Your task to perform on an android device: delete browsing data in the chrome app Image 0: 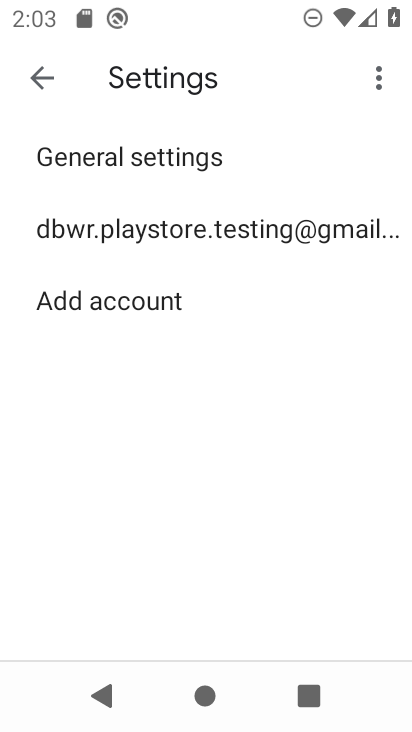
Step 0: press home button
Your task to perform on an android device: delete browsing data in the chrome app Image 1: 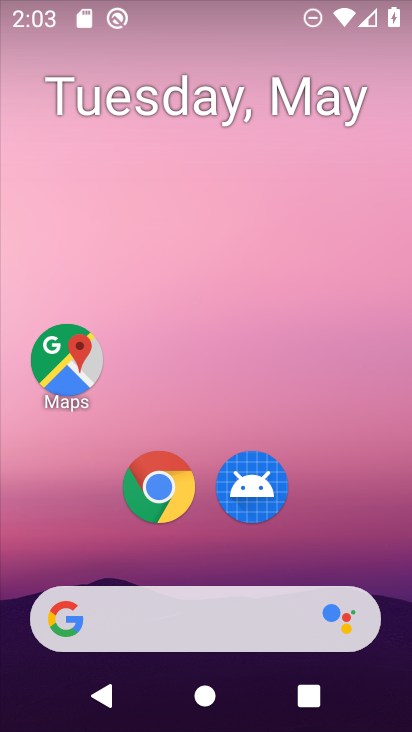
Step 1: click (169, 487)
Your task to perform on an android device: delete browsing data in the chrome app Image 2: 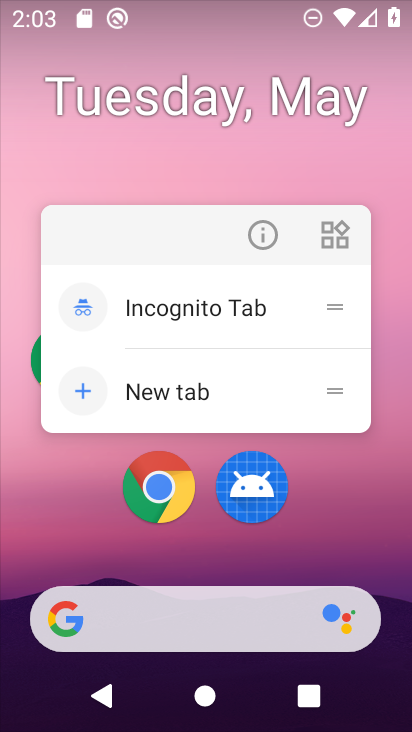
Step 2: click (140, 500)
Your task to perform on an android device: delete browsing data in the chrome app Image 3: 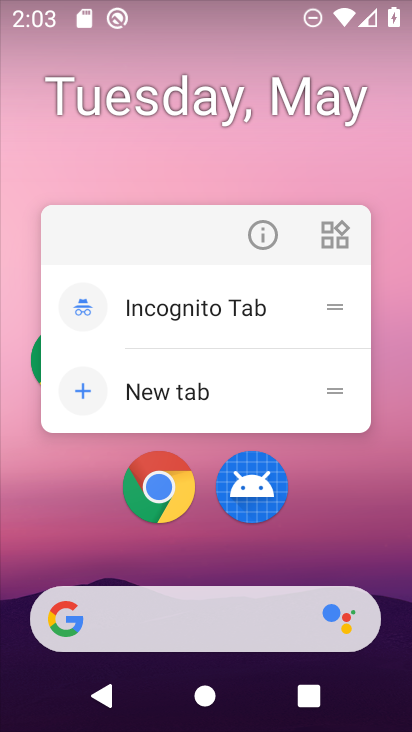
Step 3: click (160, 484)
Your task to perform on an android device: delete browsing data in the chrome app Image 4: 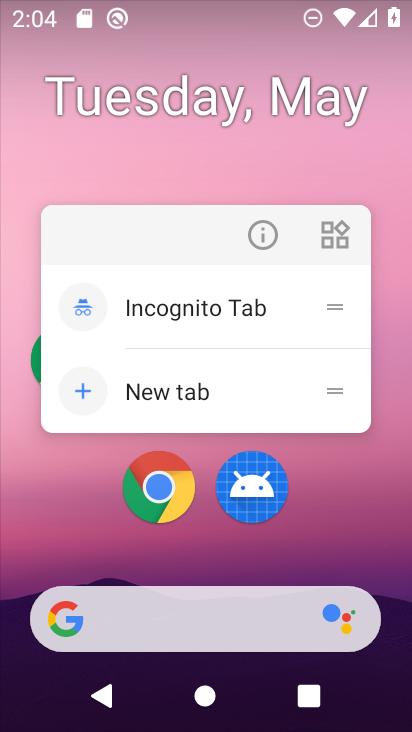
Step 4: click (164, 489)
Your task to perform on an android device: delete browsing data in the chrome app Image 5: 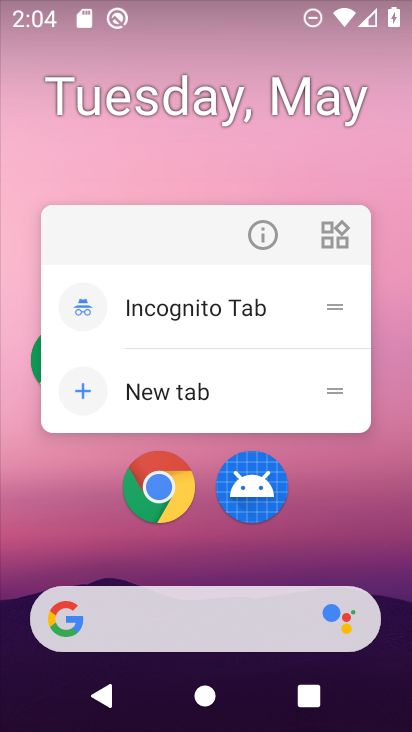
Step 5: click (164, 490)
Your task to perform on an android device: delete browsing data in the chrome app Image 6: 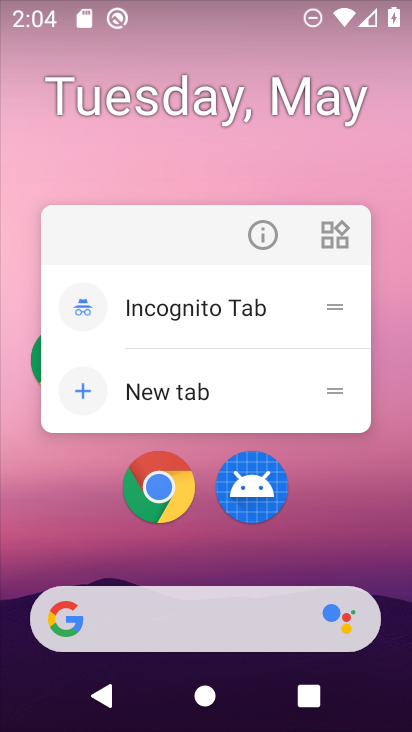
Step 6: click (162, 501)
Your task to perform on an android device: delete browsing data in the chrome app Image 7: 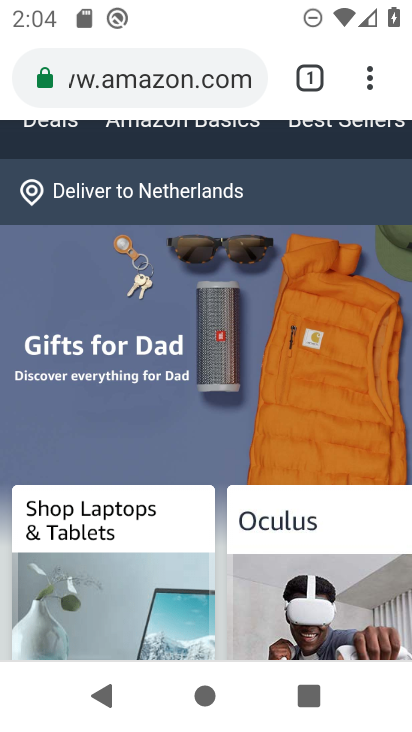
Step 7: click (370, 94)
Your task to perform on an android device: delete browsing data in the chrome app Image 8: 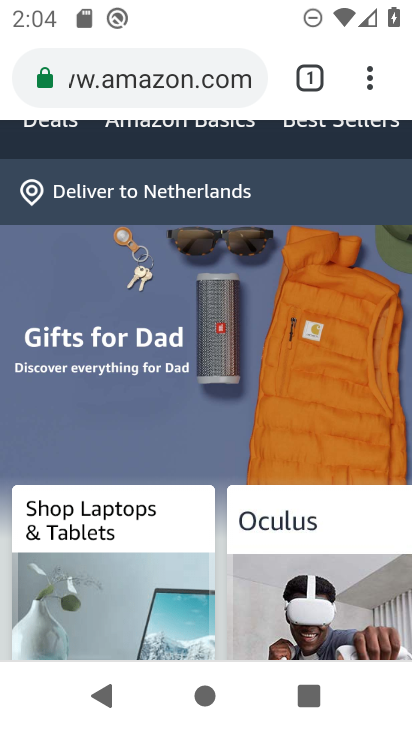
Step 8: click (362, 84)
Your task to perform on an android device: delete browsing data in the chrome app Image 9: 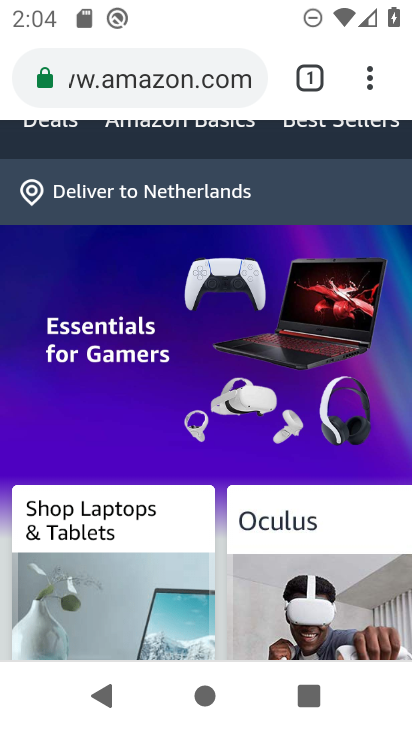
Step 9: click (368, 76)
Your task to perform on an android device: delete browsing data in the chrome app Image 10: 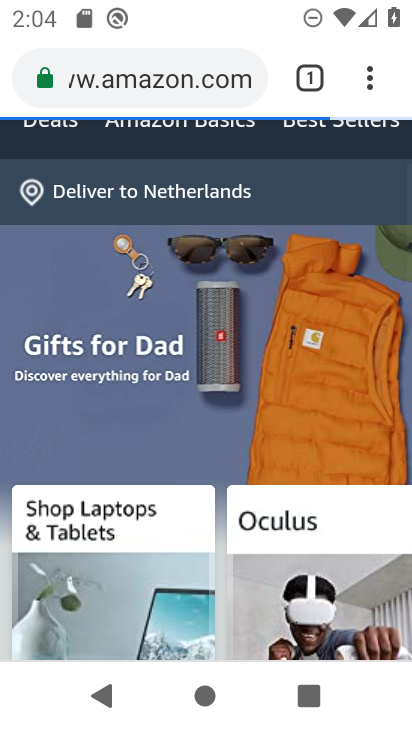
Step 10: click (368, 77)
Your task to perform on an android device: delete browsing data in the chrome app Image 11: 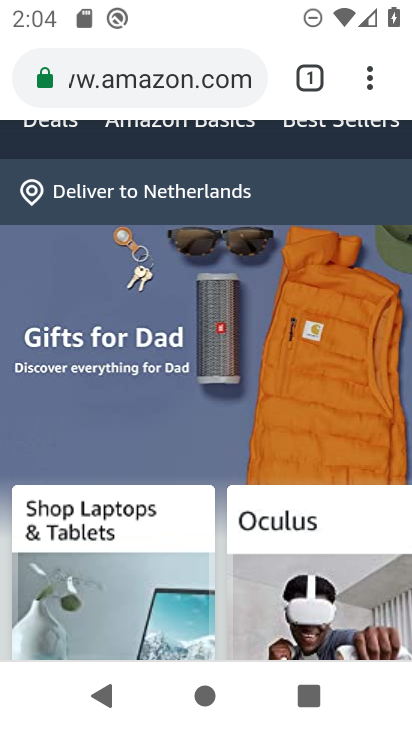
Step 11: click (370, 79)
Your task to perform on an android device: delete browsing data in the chrome app Image 12: 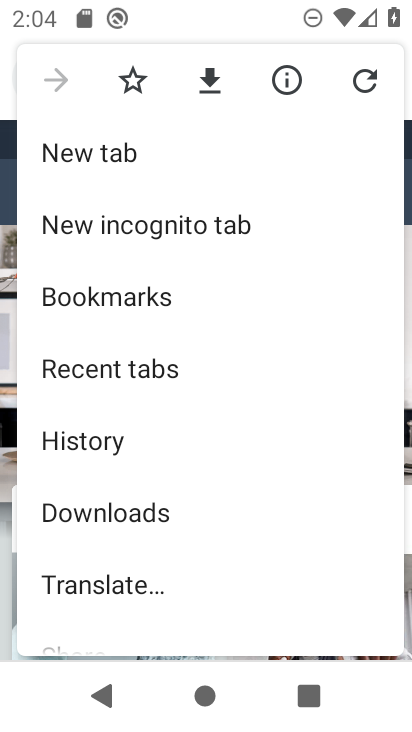
Step 12: click (74, 446)
Your task to perform on an android device: delete browsing data in the chrome app Image 13: 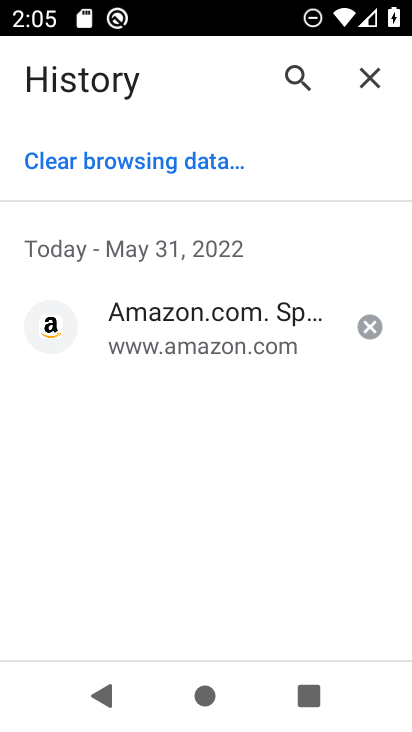
Step 13: click (156, 167)
Your task to perform on an android device: delete browsing data in the chrome app Image 14: 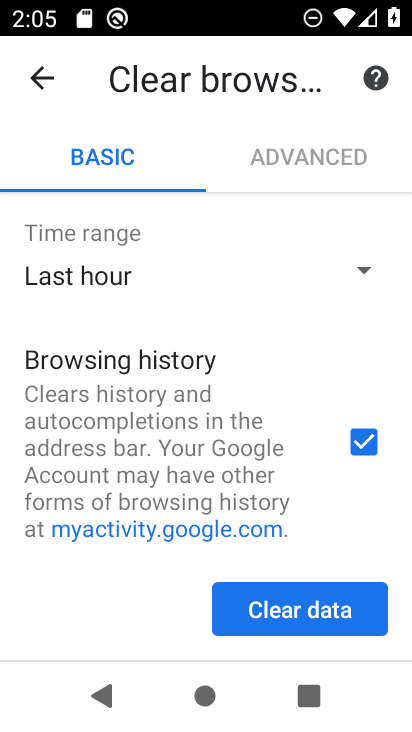
Step 14: drag from (207, 508) to (167, 353)
Your task to perform on an android device: delete browsing data in the chrome app Image 15: 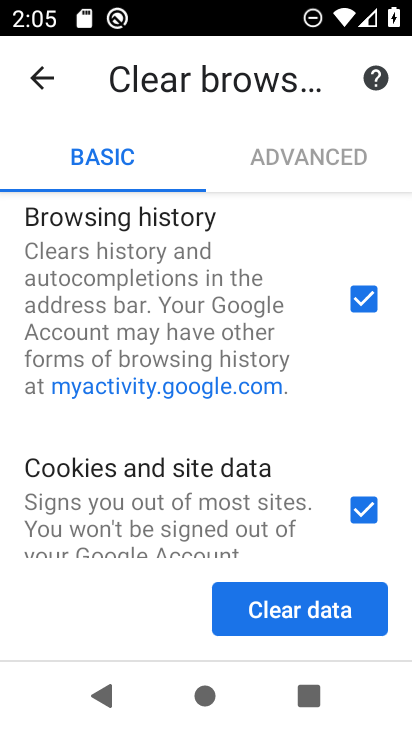
Step 15: drag from (288, 482) to (248, 300)
Your task to perform on an android device: delete browsing data in the chrome app Image 16: 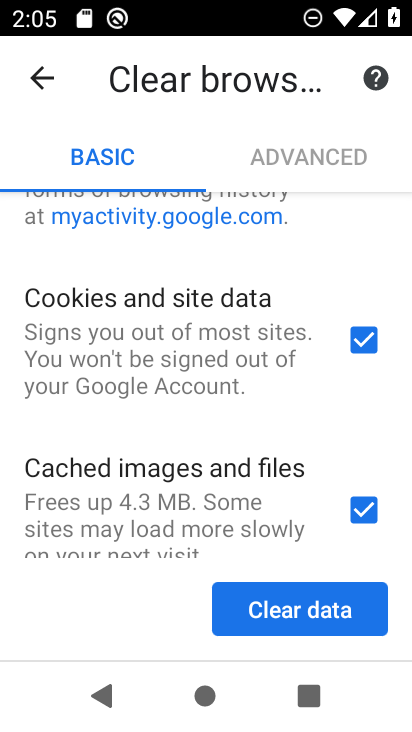
Step 16: click (325, 624)
Your task to perform on an android device: delete browsing data in the chrome app Image 17: 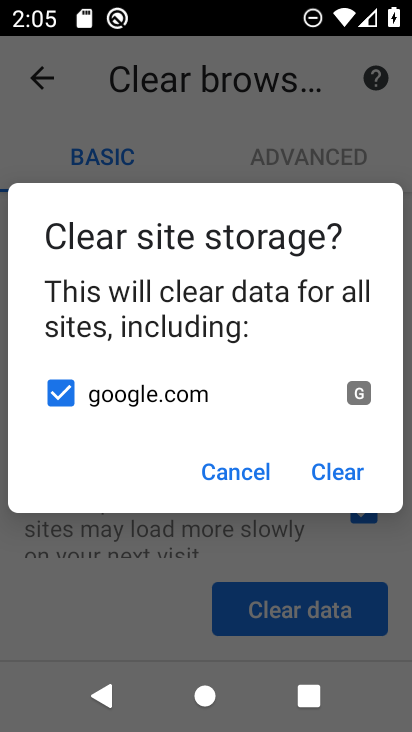
Step 17: click (353, 467)
Your task to perform on an android device: delete browsing data in the chrome app Image 18: 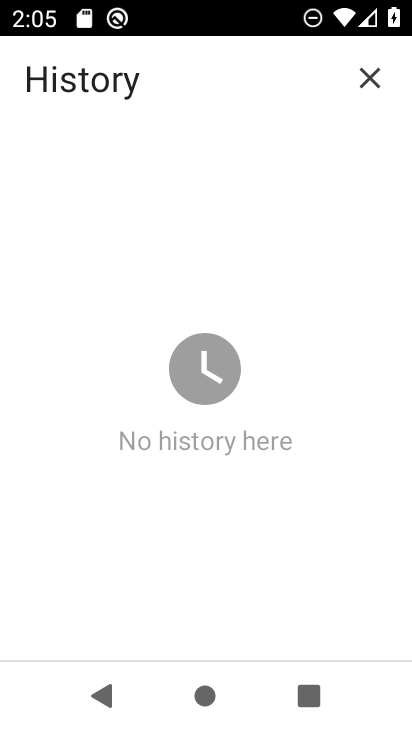
Step 18: task complete